Your task to perform on an android device: turn notification dots off Image 0: 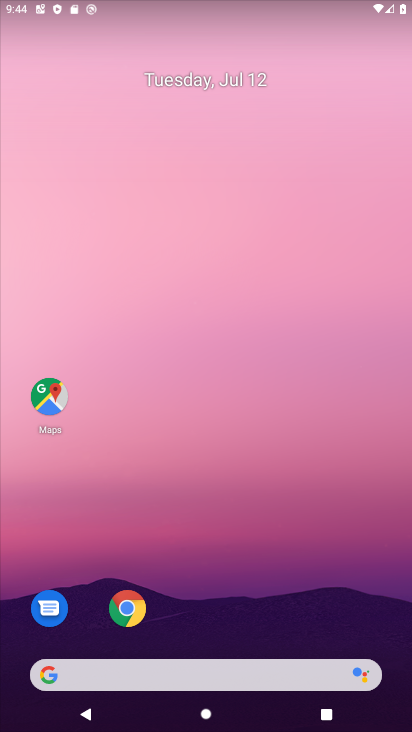
Step 0: drag from (273, 558) to (358, 10)
Your task to perform on an android device: turn notification dots off Image 1: 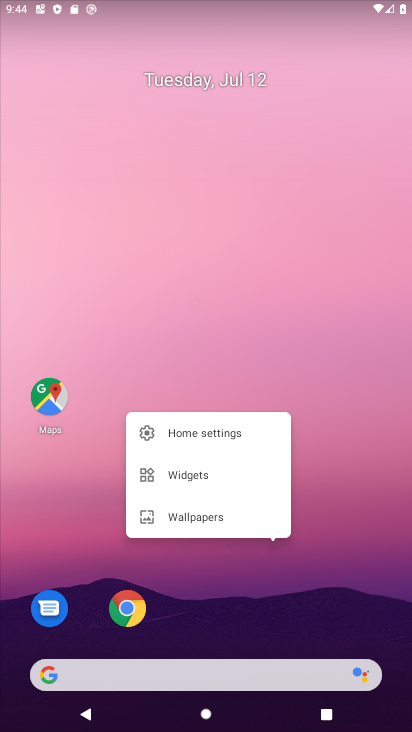
Step 1: click (277, 179)
Your task to perform on an android device: turn notification dots off Image 2: 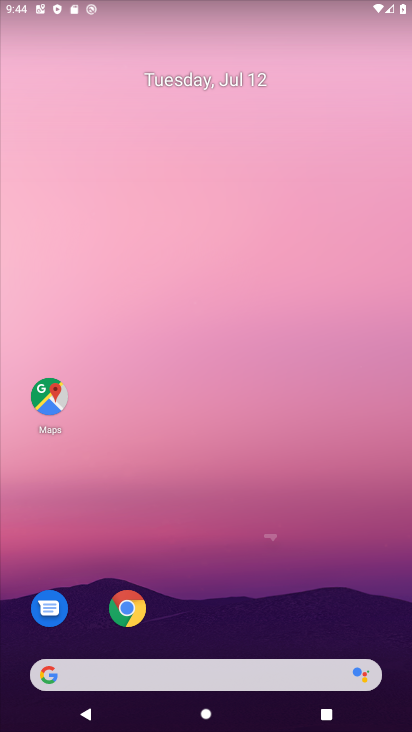
Step 2: drag from (277, 179) to (290, 38)
Your task to perform on an android device: turn notification dots off Image 3: 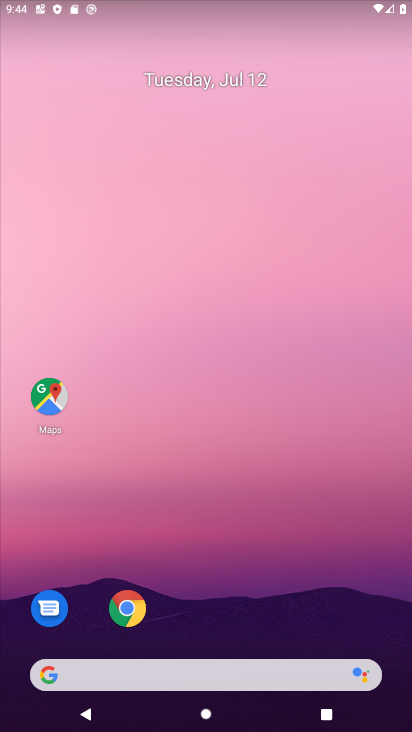
Step 3: drag from (276, 403) to (273, 67)
Your task to perform on an android device: turn notification dots off Image 4: 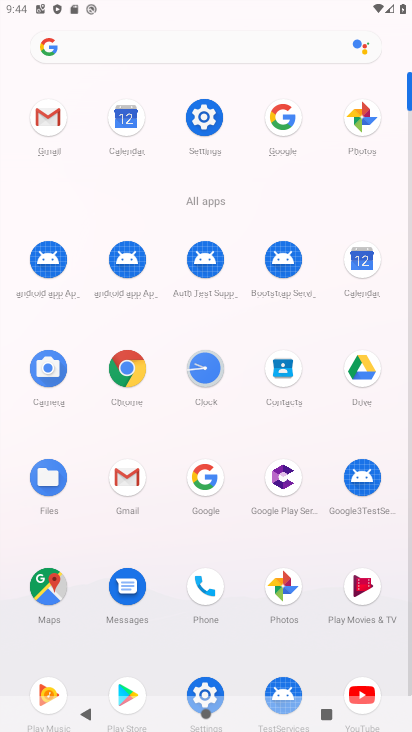
Step 4: click (204, 114)
Your task to perform on an android device: turn notification dots off Image 5: 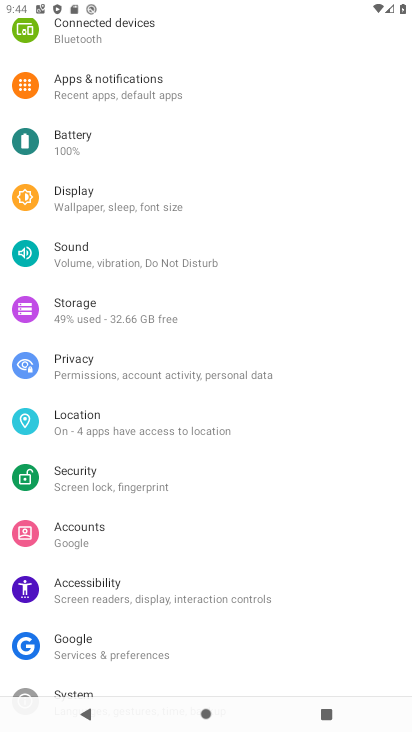
Step 5: click (130, 75)
Your task to perform on an android device: turn notification dots off Image 6: 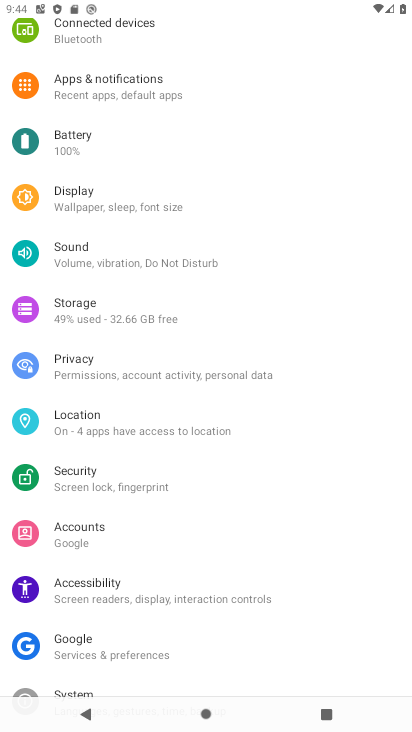
Step 6: click (130, 75)
Your task to perform on an android device: turn notification dots off Image 7: 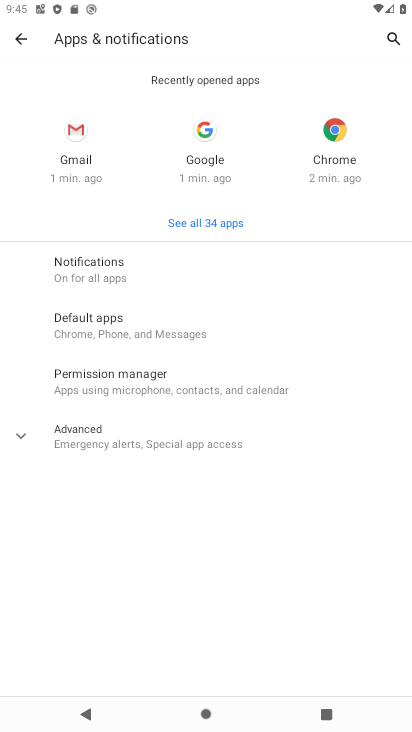
Step 7: click (232, 258)
Your task to perform on an android device: turn notification dots off Image 8: 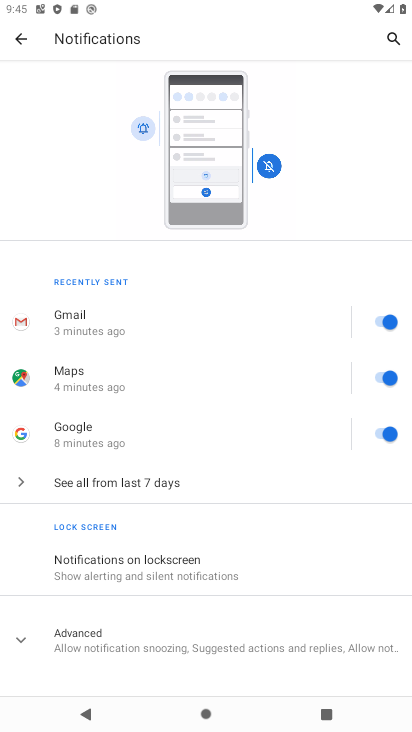
Step 8: click (229, 647)
Your task to perform on an android device: turn notification dots off Image 9: 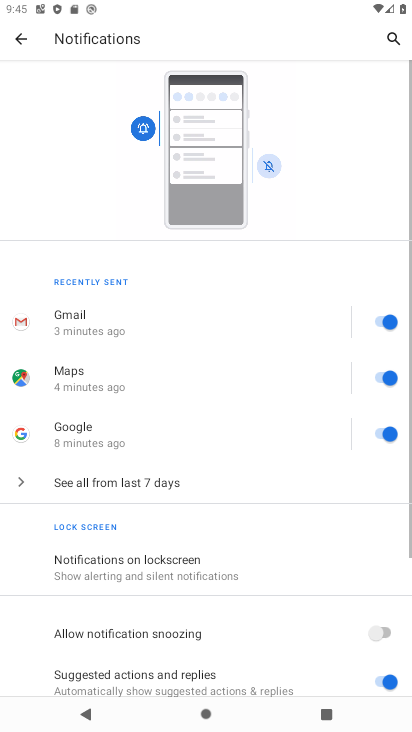
Step 9: task complete